Your task to perform on an android device: open chrome privacy settings Image 0: 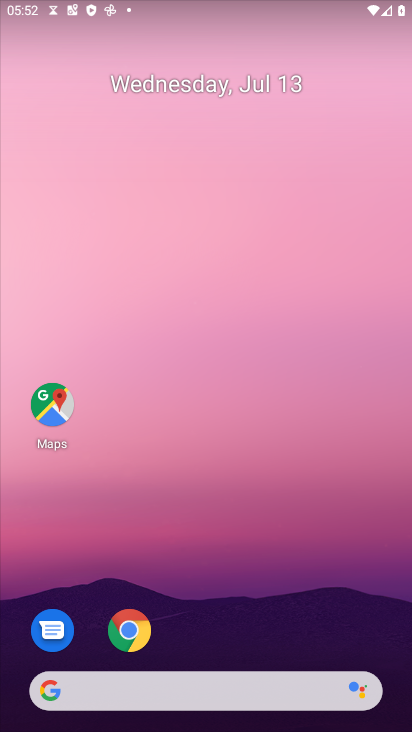
Step 0: drag from (277, 627) to (305, 96)
Your task to perform on an android device: open chrome privacy settings Image 1: 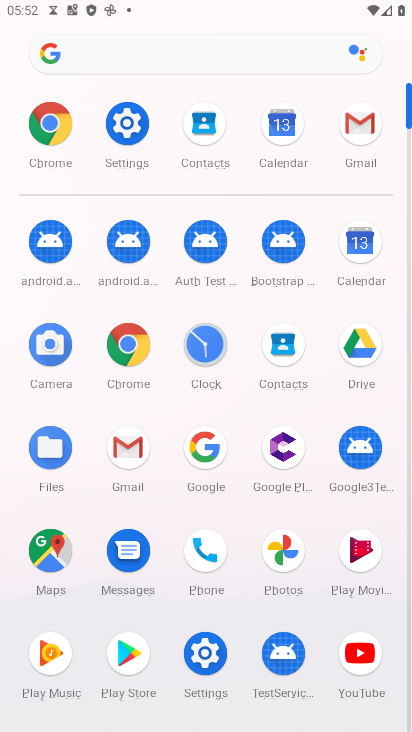
Step 1: click (132, 352)
Your task to perform on an android device: open chrome privacy settings Image 2: 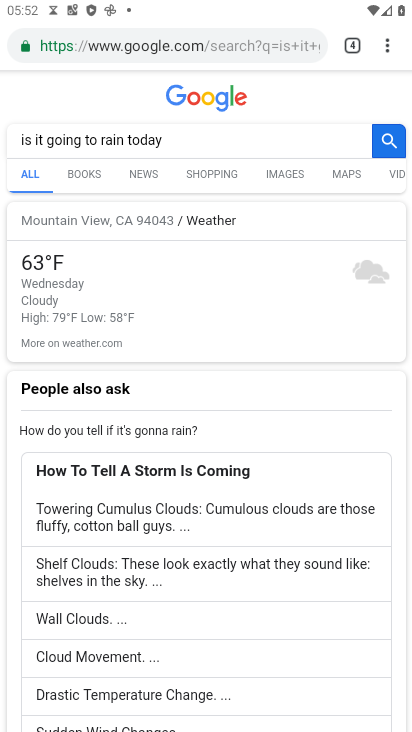
Step 2: drag from (392, 42) to (247, 501)
Your task to perform on an android device: open chrome privacy settings Image 3: 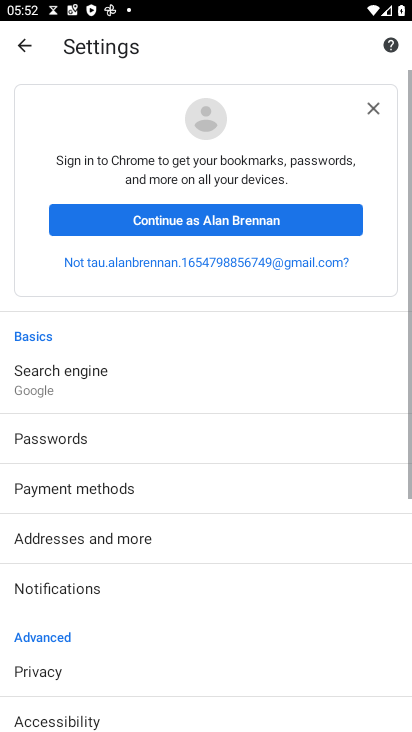
Step 3: click (60, 665)
Your task to perform on an android device: open chrome privacy settings Image 4: 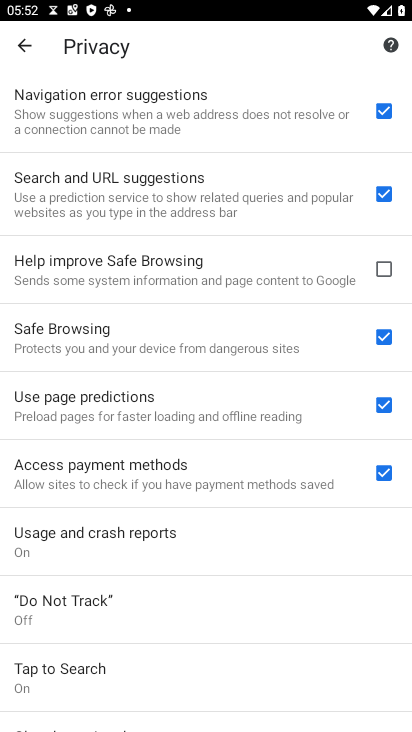
Step 4: task complete